Your task to perform on an android device: turn on location history Image 0: 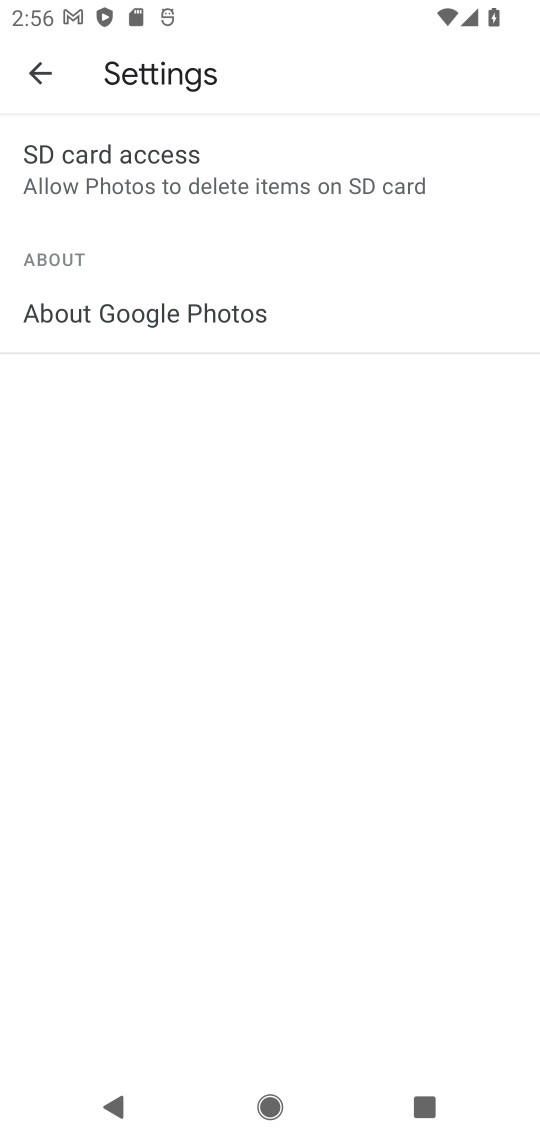
Step 0: press home button
Your task to perform on an android device: turn on location history Image 1: 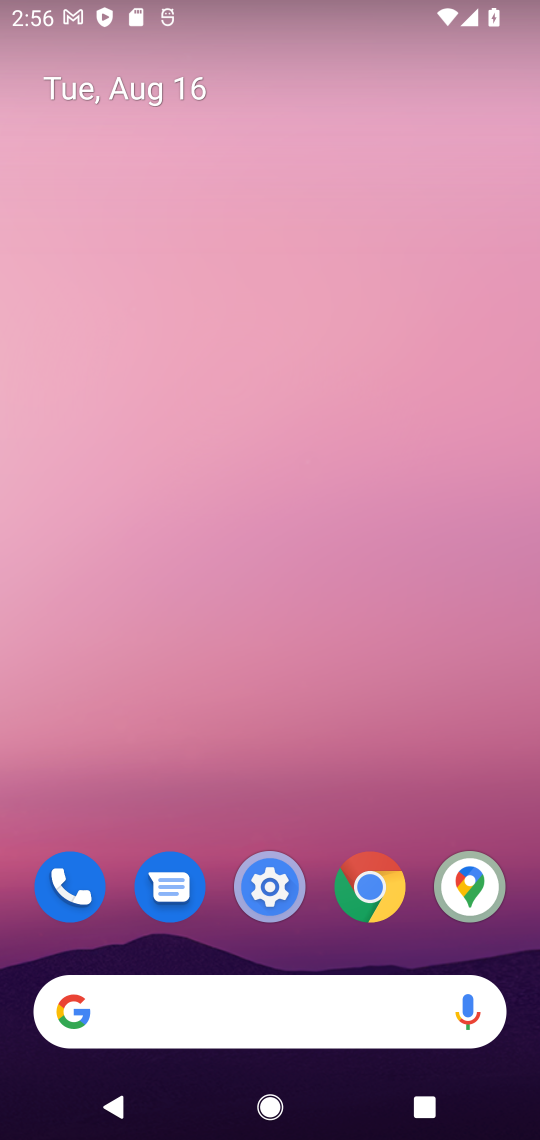
Step 1: drag from (321, 925) to (342, 117)
Your task to perform on an android device: turn on location history Image 2: 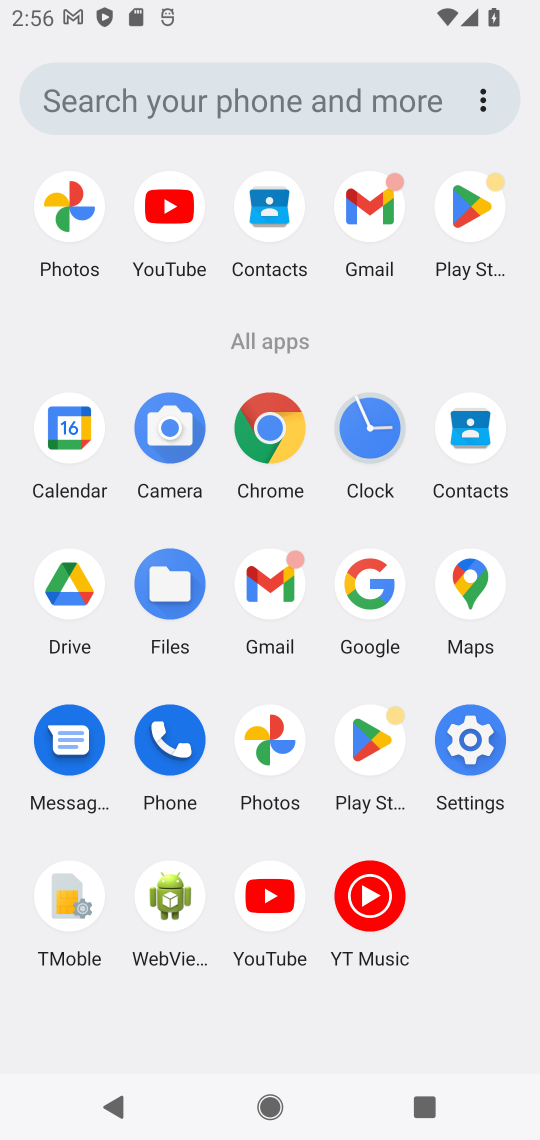
Step 2: click (459, 575)
Your task to perform on an android device: turn on location history Image 3: 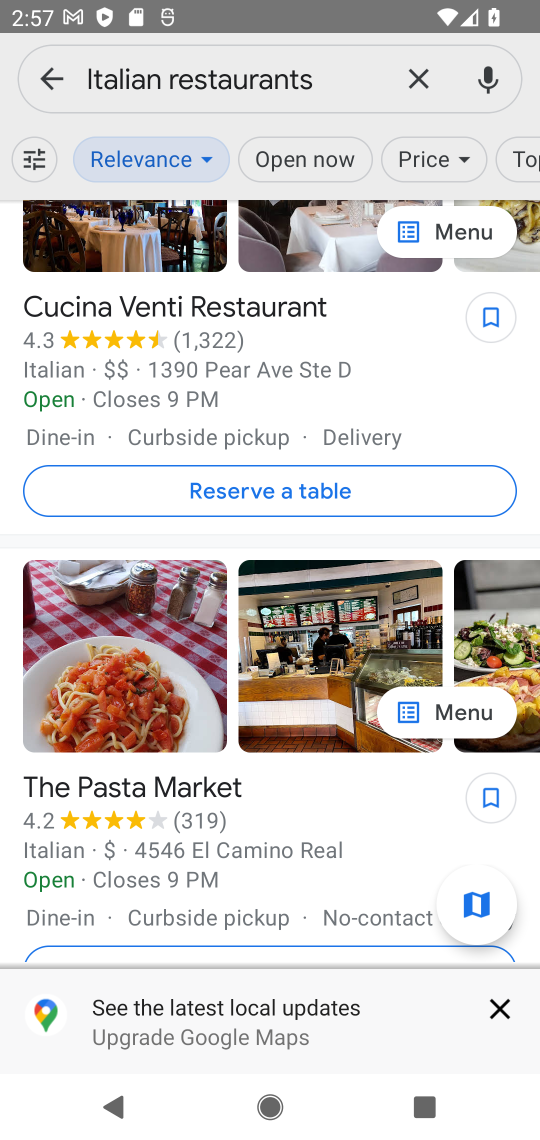
Step 3: press home button
Your task to perform on an android device: turn on location history Image 4: 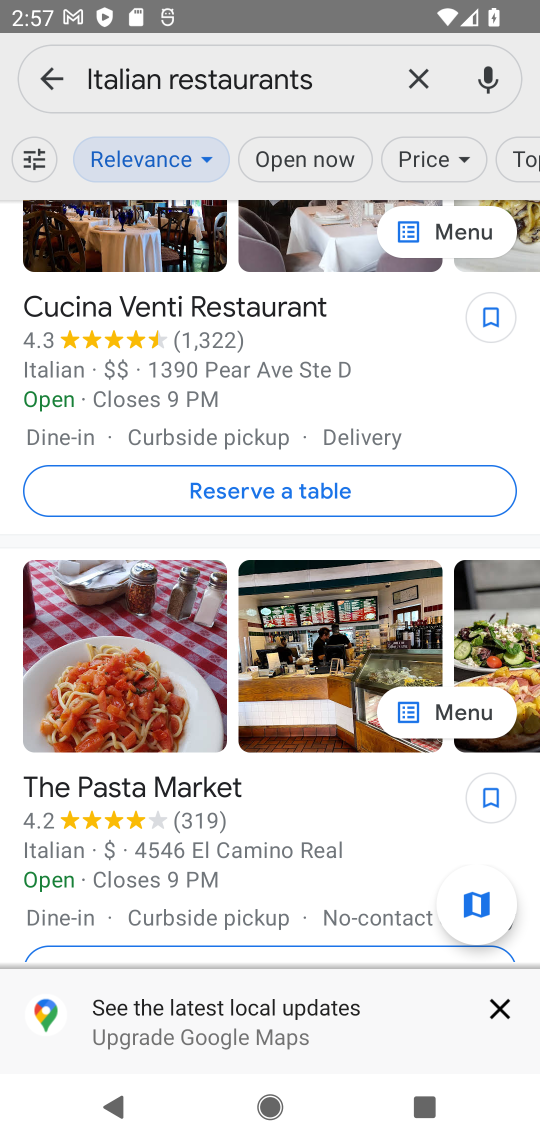
Step 4: press home button
Your task to perform on an android device: turn on location history Image 5: 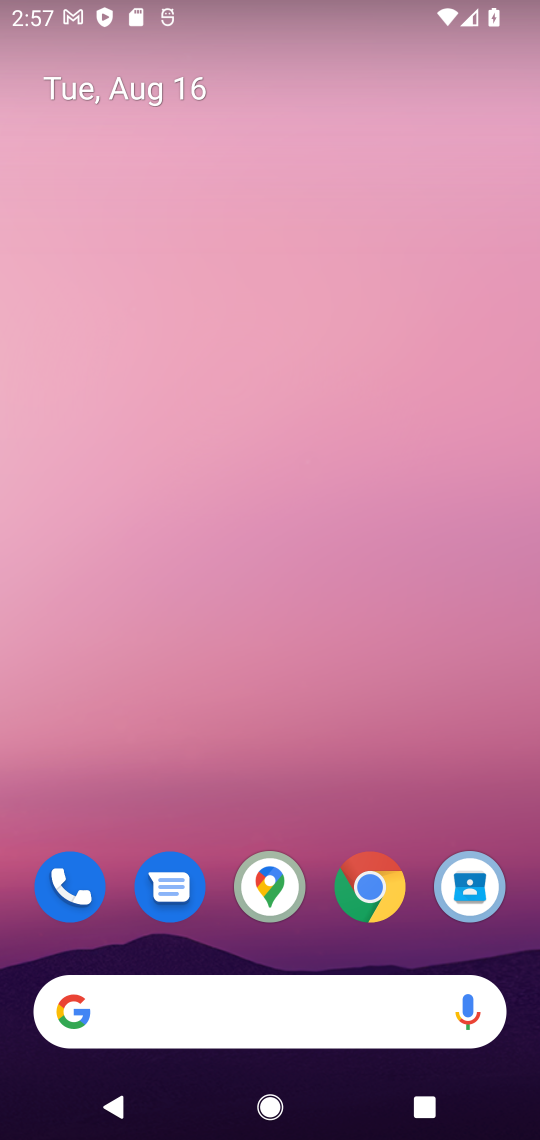
Step 5: drag from (362, 770) to (362, 41)
Your task to perform on an android device: turn on location history Image 6: 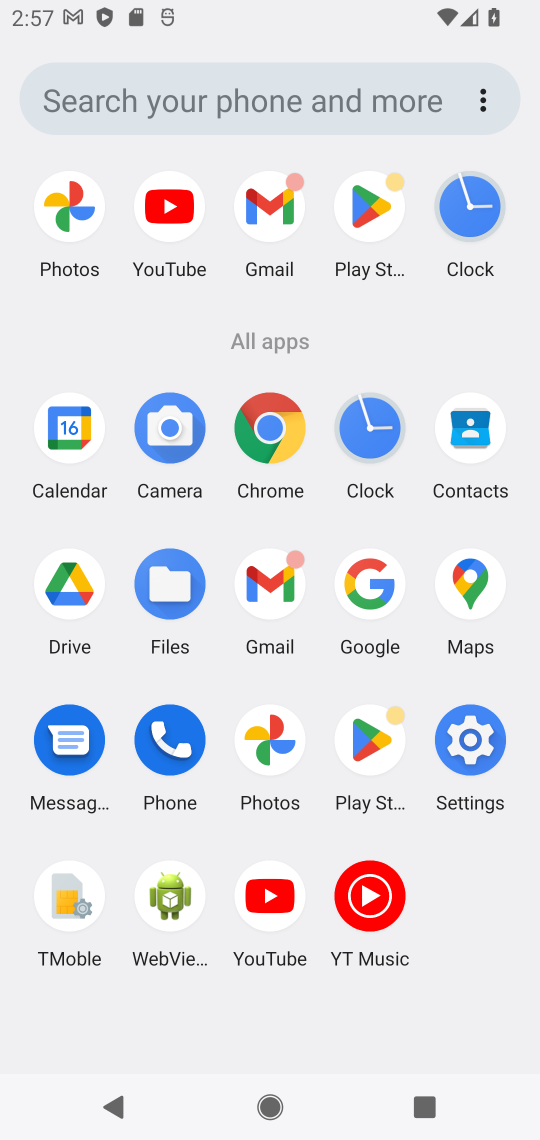
Step 6: click (472, 727)
Your task to perform on an android device: turn on location history Image 7: 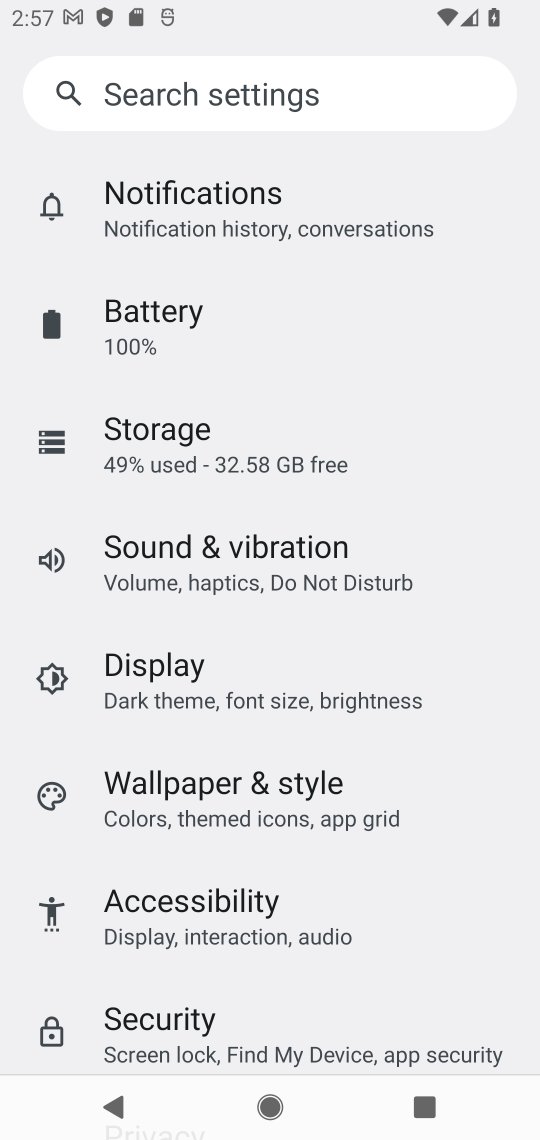
Step 7: drag from (461, 773) to (423, 253)
Your task to perform on an android device: turn on location history Image 8: 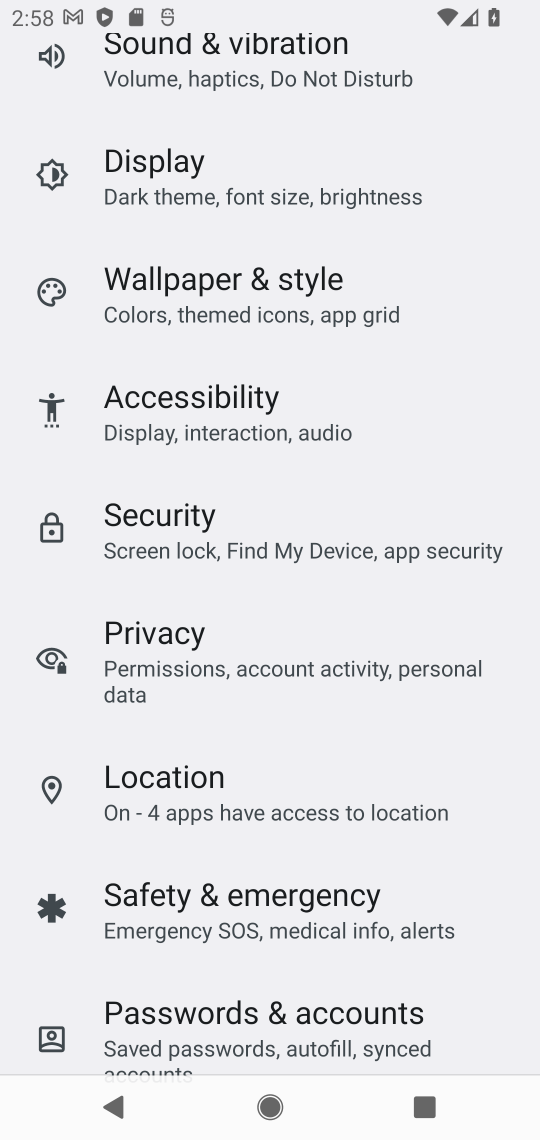
Step 8: click (196, 812)
Your task to perform on an android device: turn on location history Image 9: 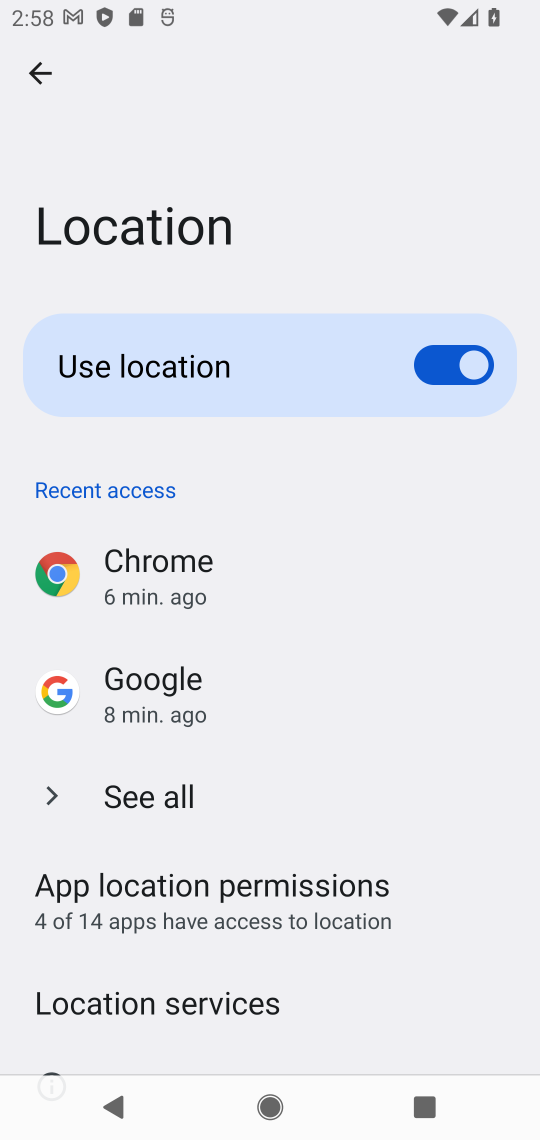
Step 9: drag from (450, 767) to (412, 134)
Your task to perform on an android device: turn on location history Image 10: 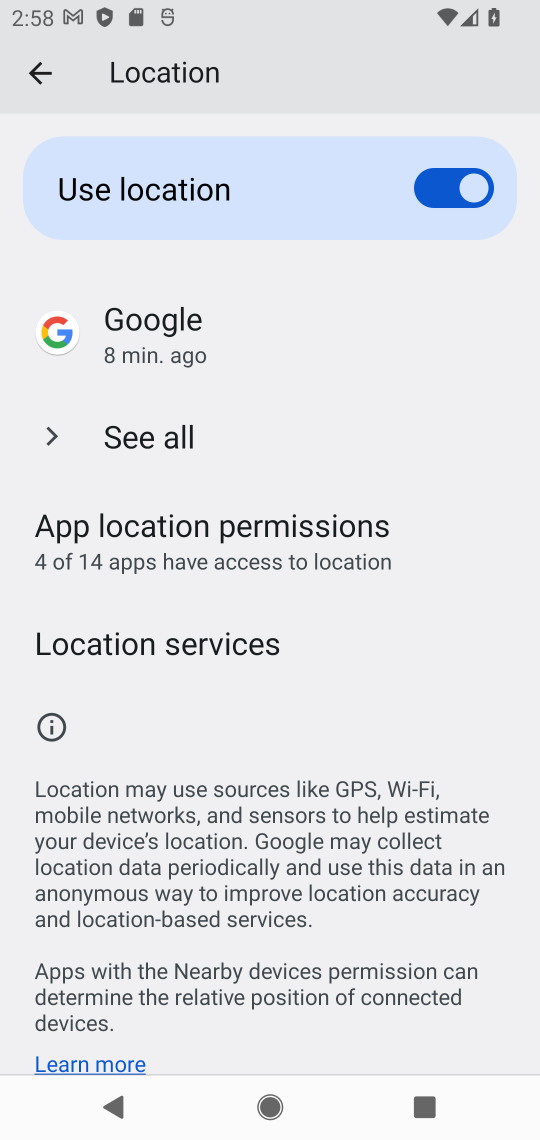
Step 10: click (201, 651)
Your task to perform on an android device: turn on location history Image 11: 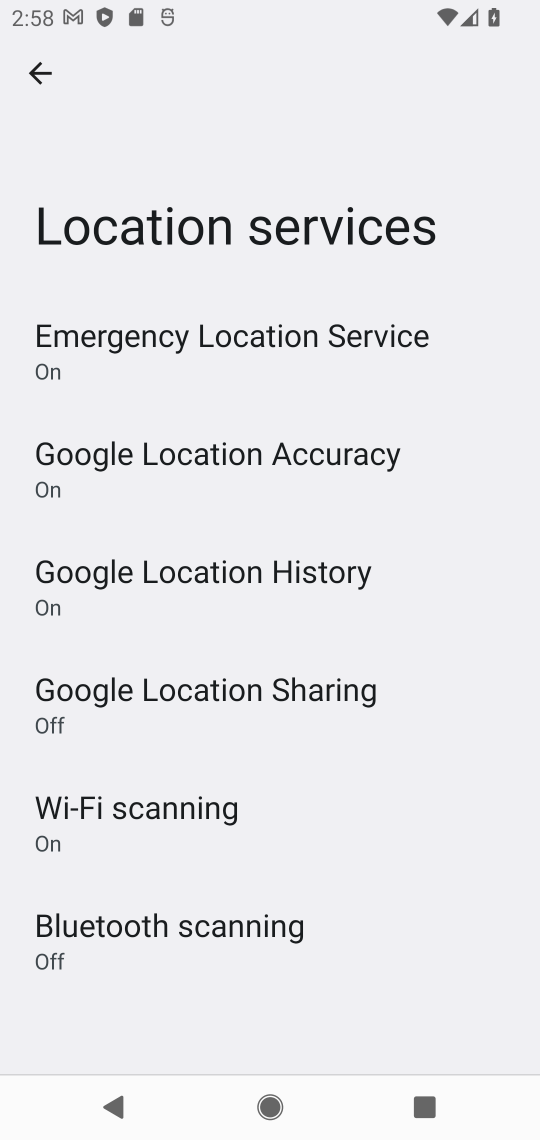
Step 11: drag from (446, 874) to (442, 253)
Your task to perform on an android device: turn on location history Image 12: 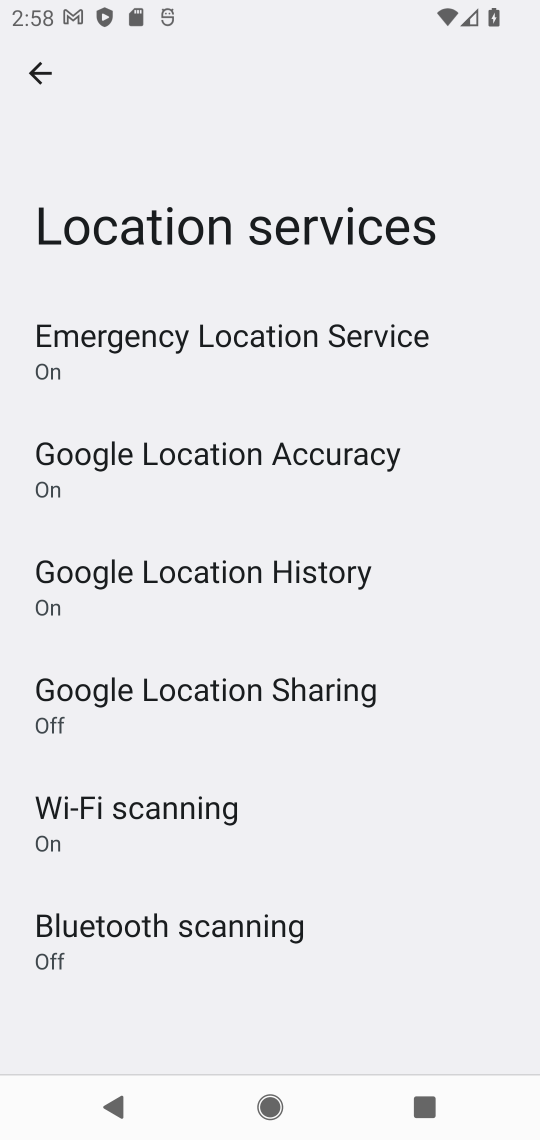
Step 12: click (249, 579)
Your task to perform on an android device: turn on location history Image 13: 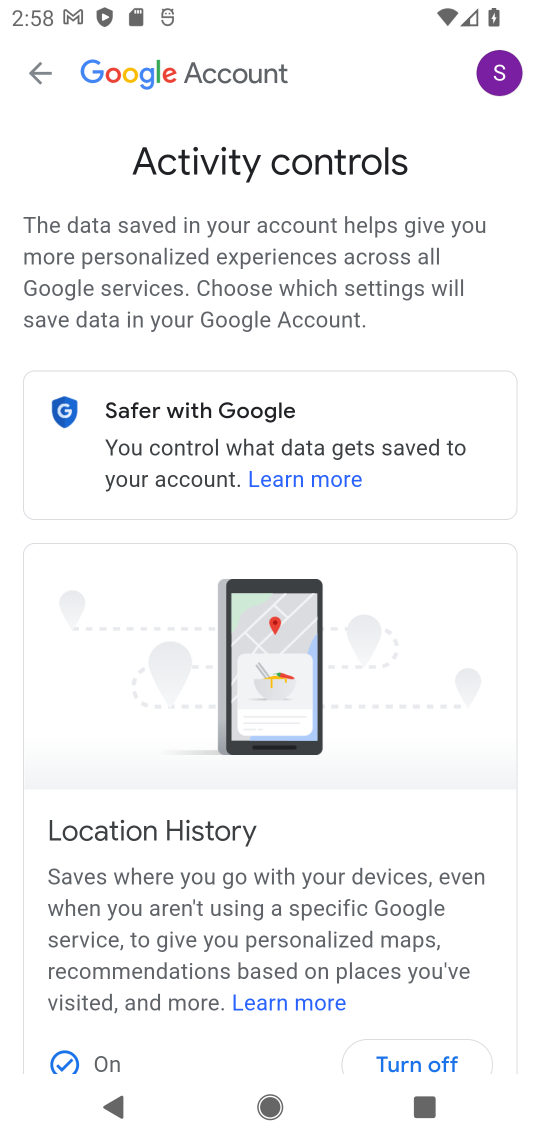
Step 13: task complete